Your task to perform on an android device: Clear the cart on target. Add usb-c to the cart on target, then select checkout. Image 0: 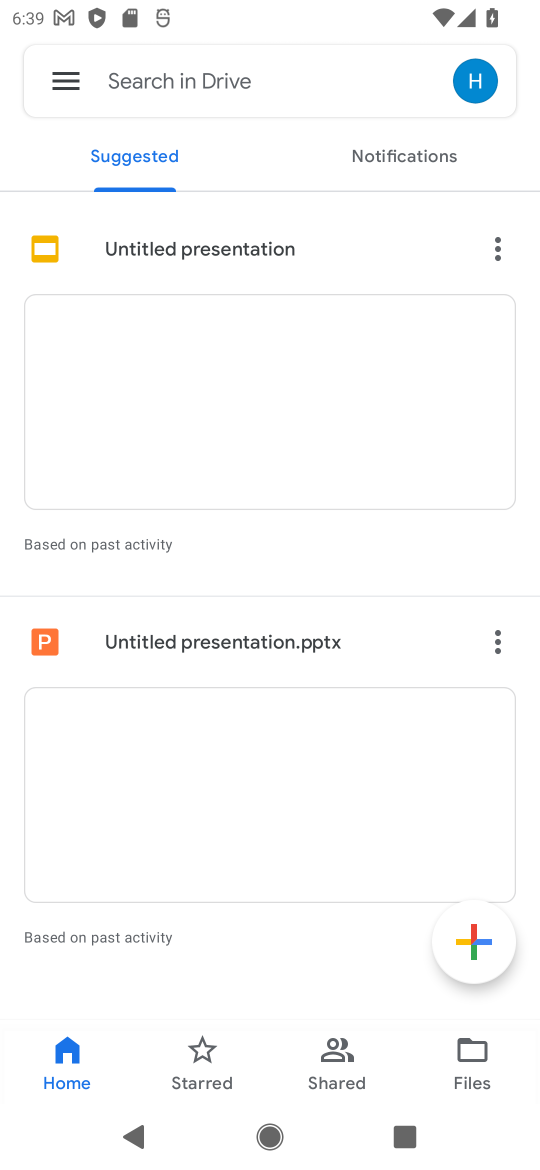
Step 0: press home button
Your task to perform on an android device: Clear the cart on target. Add usb-c to the cart on target, then select checkout. Image 1: 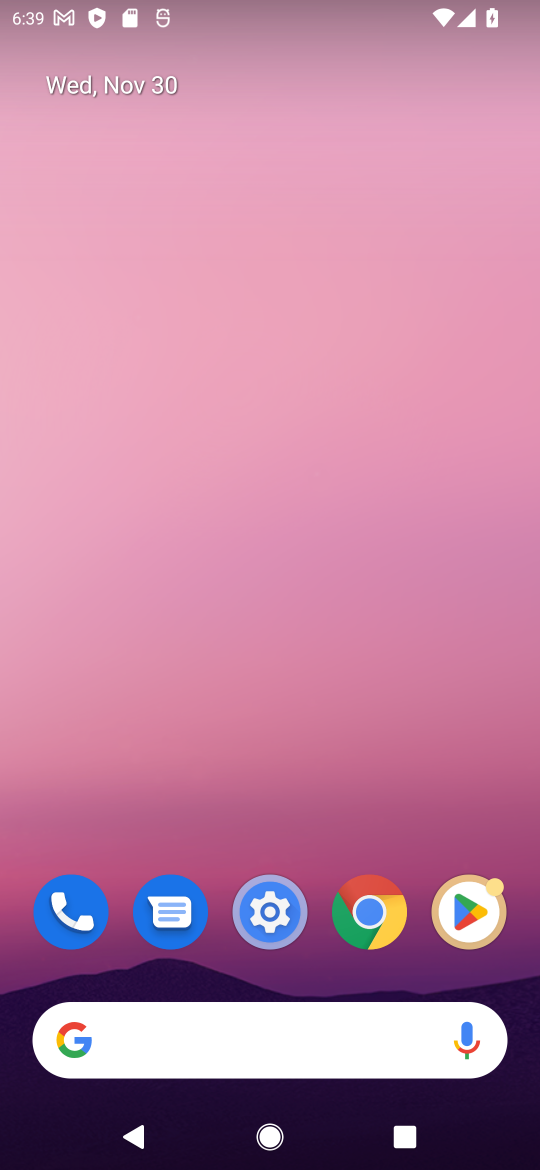
Step 1: click (246, 1052)
Your task to perform on an android device: Clear the cart on target. Add usb-c to the cart on target, then select checkout. Image 2: 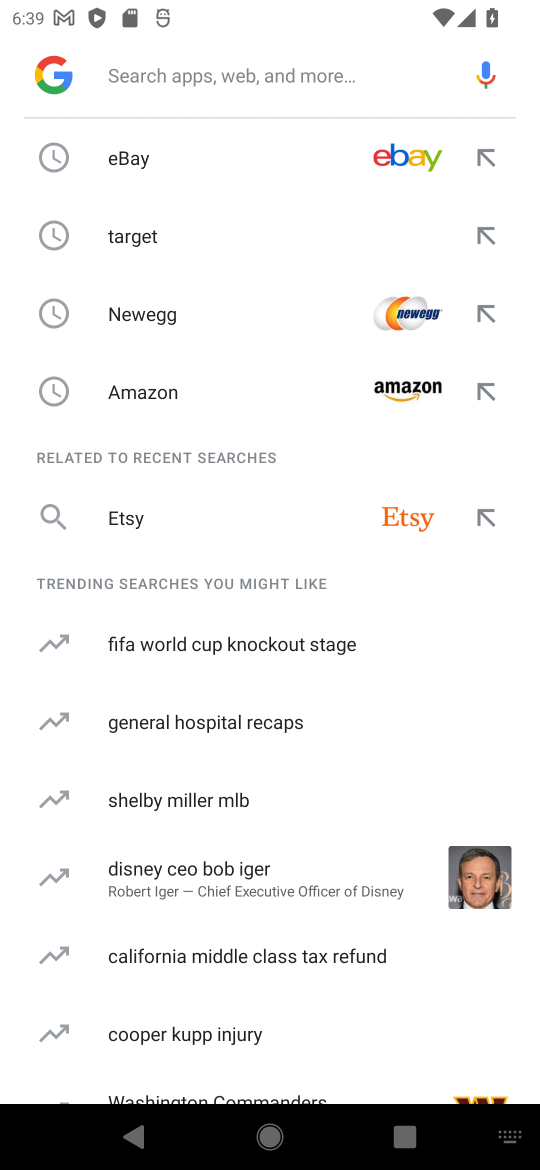
Step 2: click (139, 238)
Your task to perform on an android device: Clear the cart on target. Add usb-c to the cart on target, then select checkout. Image 3: 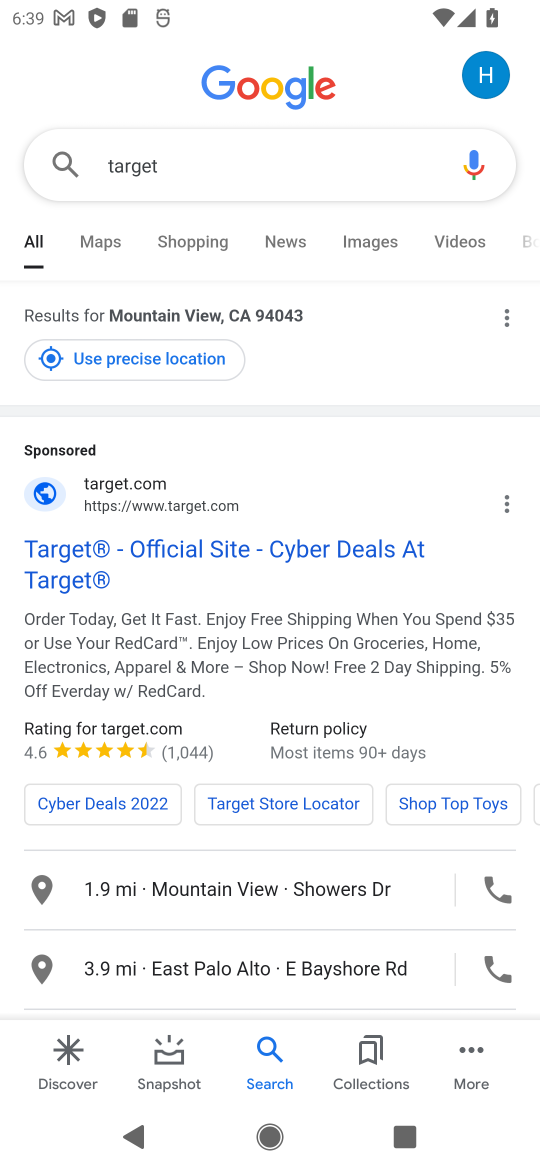
Step 3: drag from (151, 702) to (143, 450)
Your task to perform on an android device: Clear the cart on target. Add usb-c to the cart on target, then select checkout. Image 4: 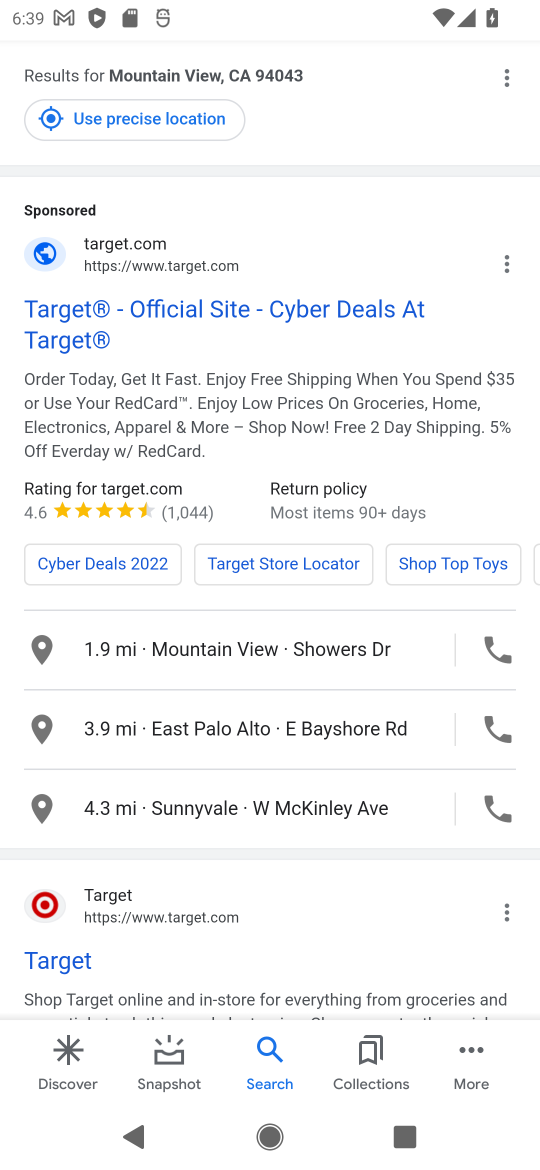
Step 4: click (67, 952)
Your task to perform on an android device: Clear the cart on target. Add usb-c to the cart on target, then select checkout. Image 5: 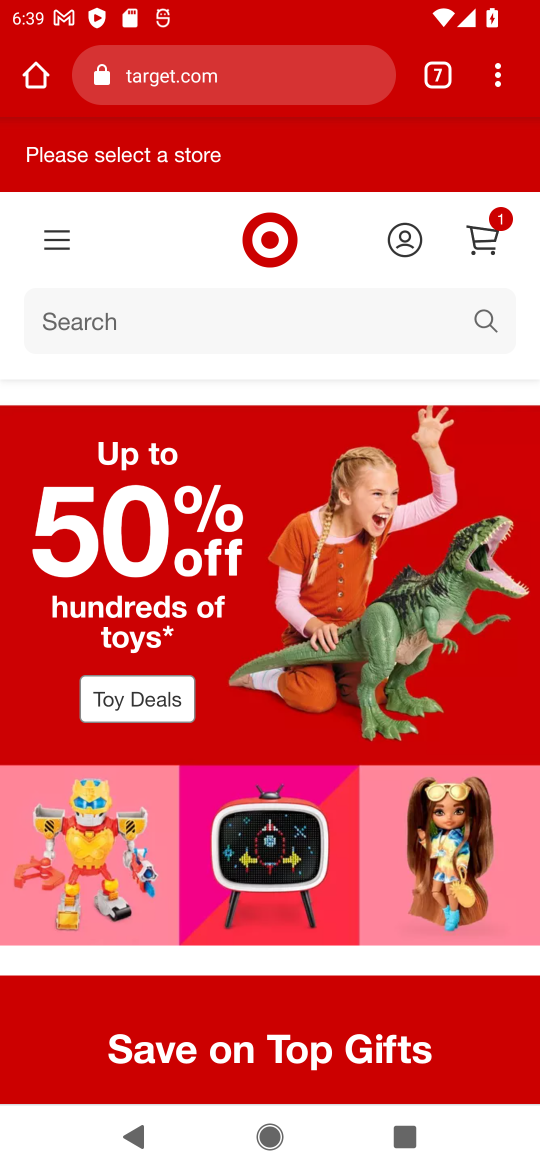
Step 5: click (495, 240)
Your task to perform on an android device: Clear the cart on target. Add usb-c to the cart on target, then select checkout. Image 6: 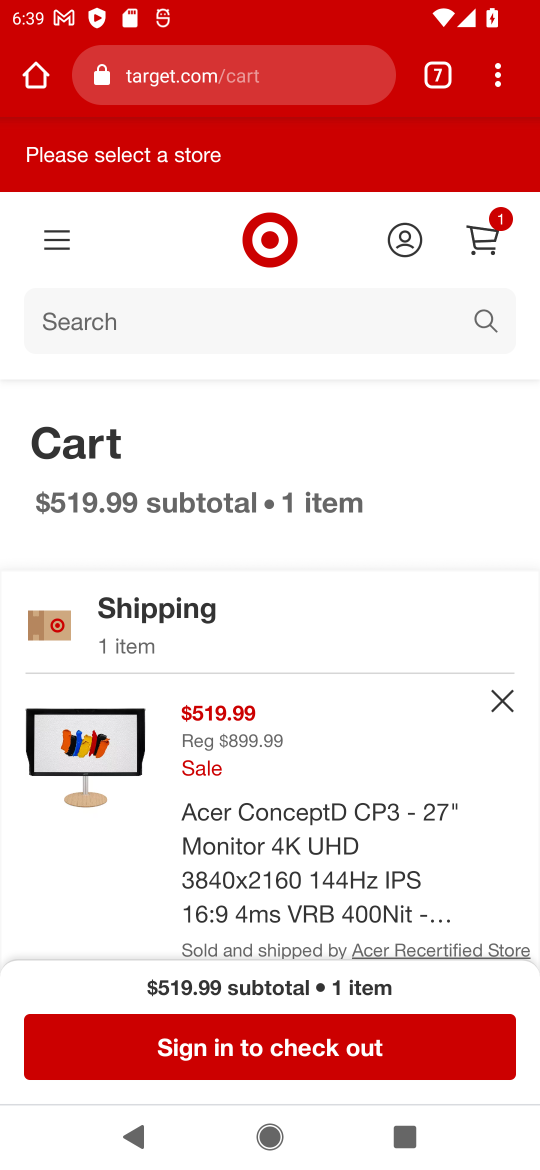
Step 6: click (511, 701)
Your task to perform on an android device: Clear the cart on target. Add usb-c to the cart on target, then select checkout. Image 7: 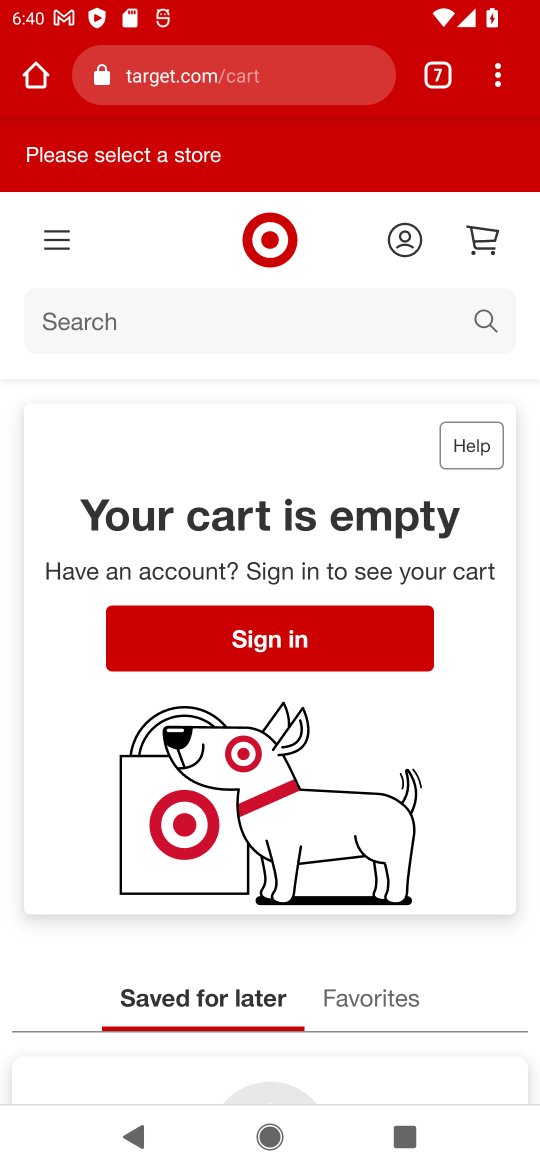
Step 7: click (237, 316)
Your task to perform on an android device: Clear the cart on target. Add usb-c to the cart on target, then select checkout. Image 8: 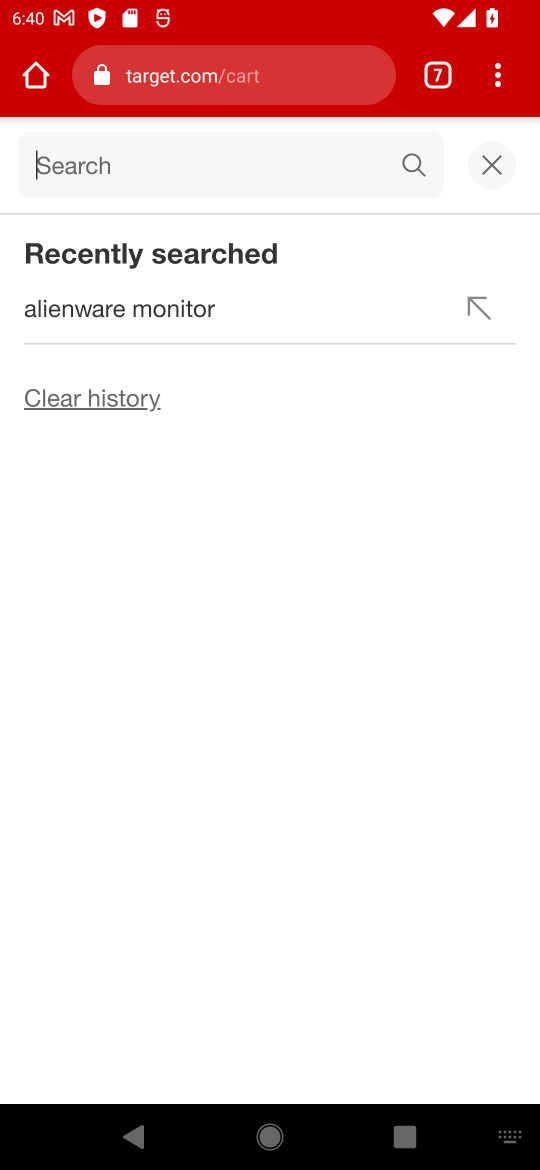
Step 8: type "usb-c"
Your task to perform on an android device: Clear the cart on target. Add usb-c to the cart on target, then select checkout. Image 9: 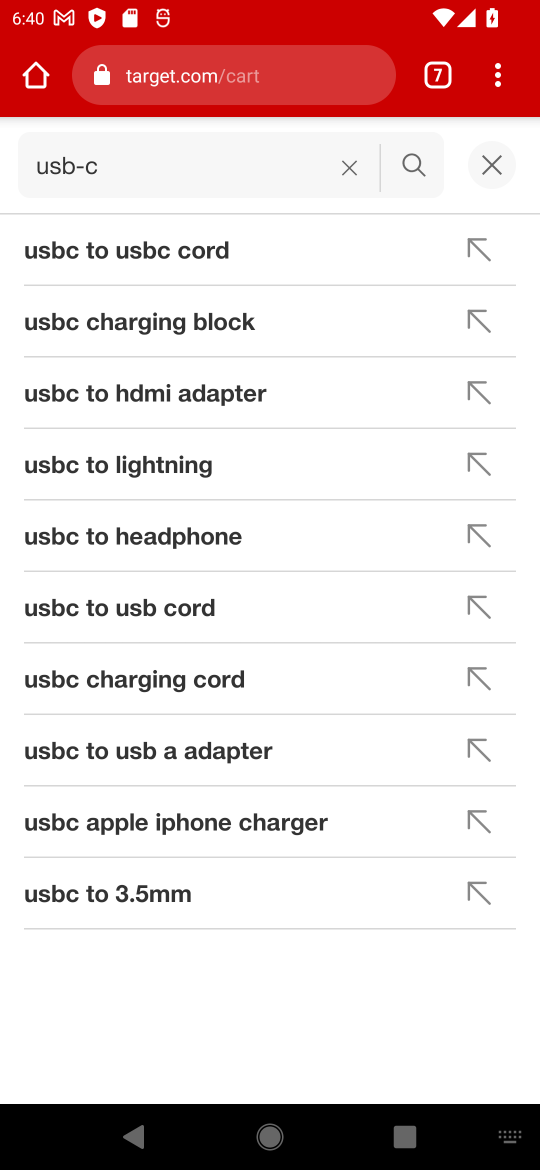
Step 9: click (194, 245)
Your task to perform on an android device: Clear the cart on target. Add usb-c to the cart on target, then select checkout. Image 10: 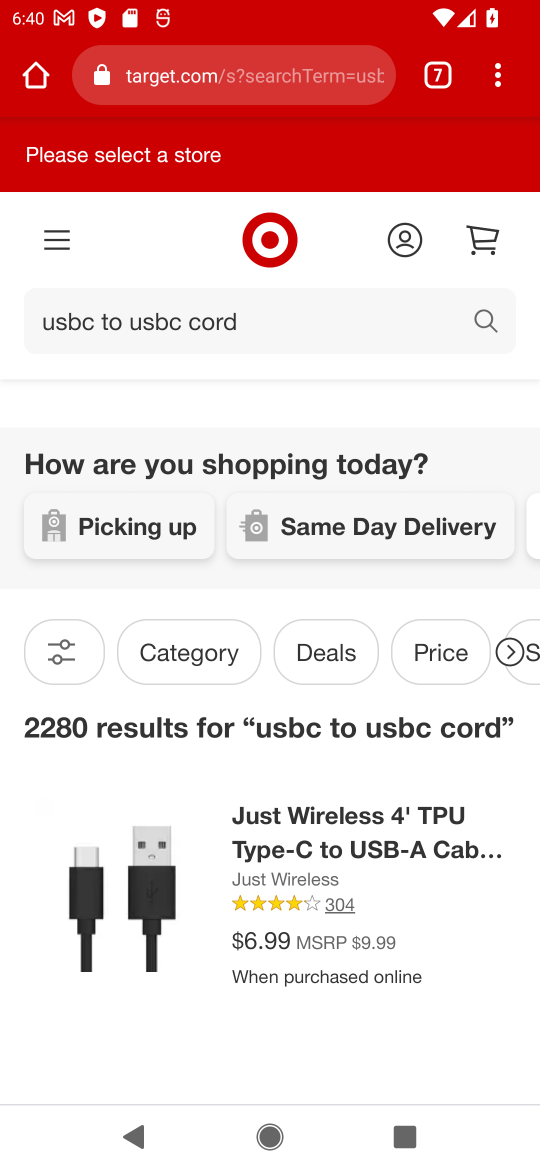
Step 10: drag from (347, 857) to (346, 767)
Your task to perform on an android device: Clear the cart on target. Add usb-c to the cart on target, then select checkout. Image 11: 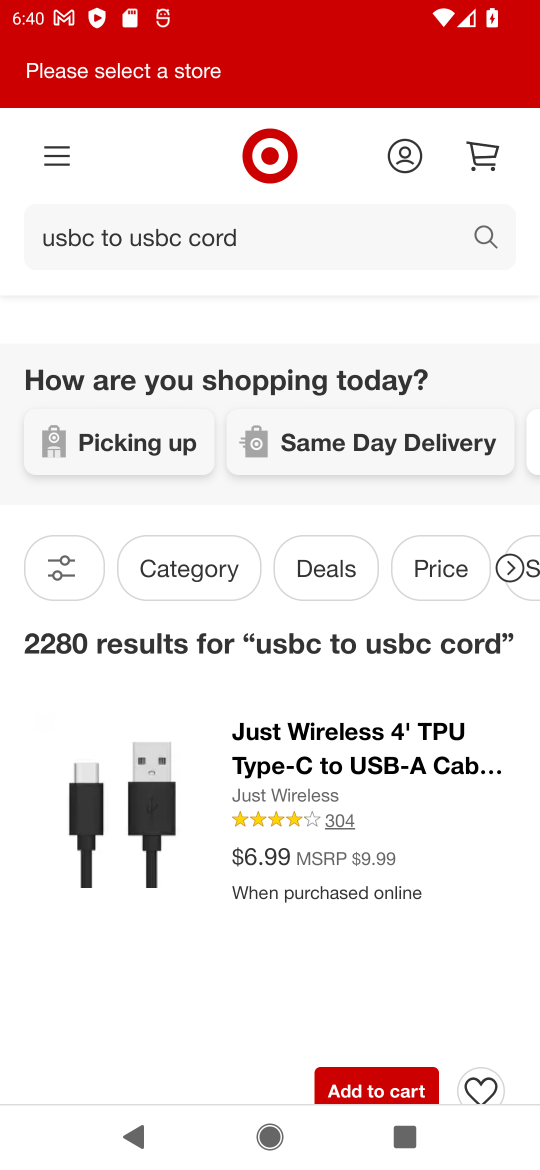
Step 11: drag from (280, 748) to (272, 631)
Your task to perform on an android device: Clear the cart on target. Add usb-c to the cart on target, then select checkout. Image 12: 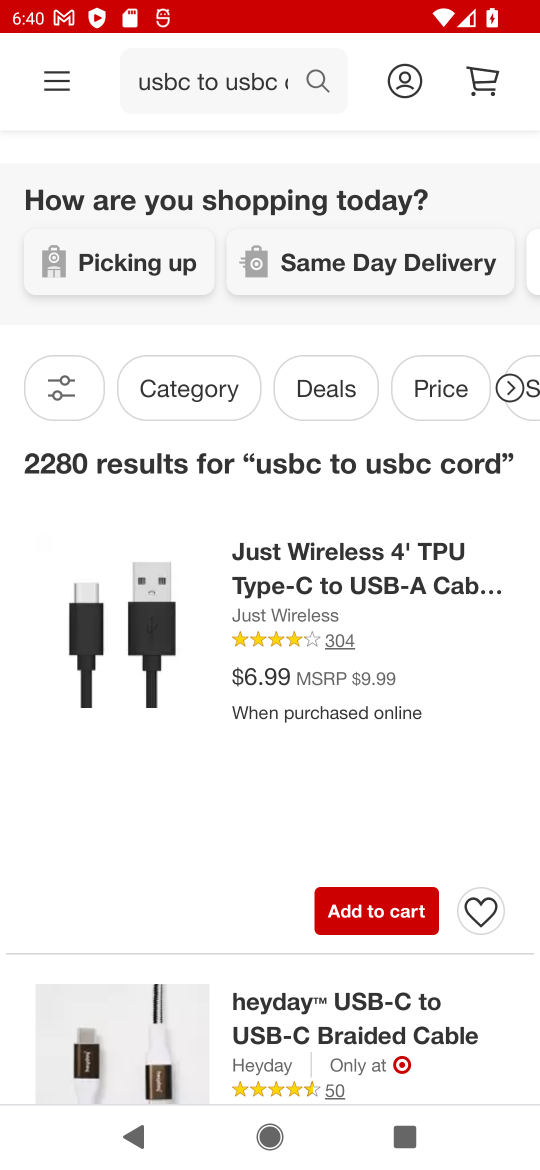
Step 12: click (371, 911)
Your task to perform on an android device: Clear the cart on target. Add usb-c to the cart on target, then select checkout. Image 13: 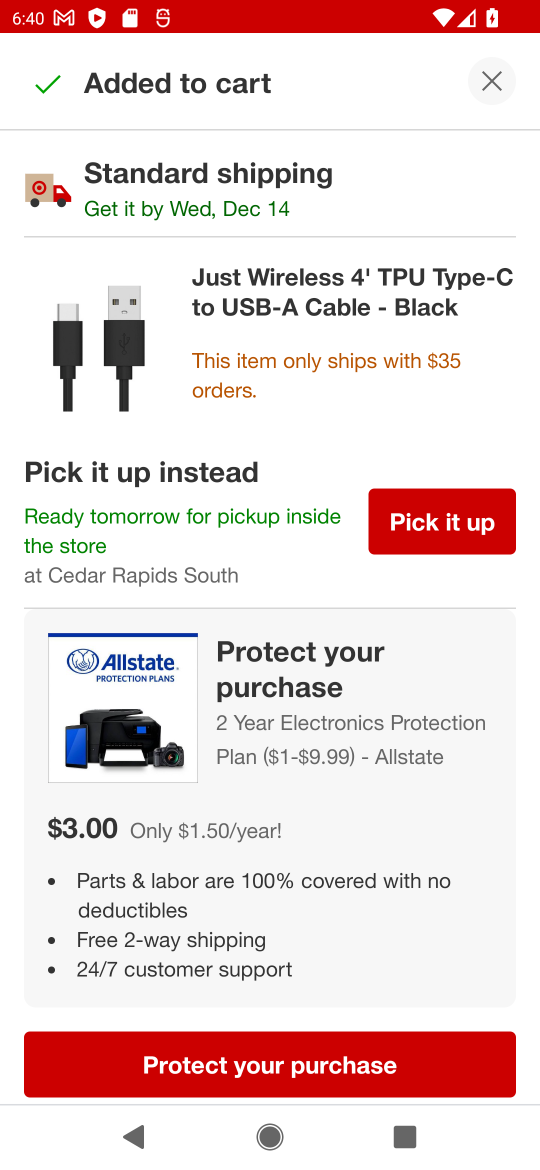
Step 13: click (499, 75)
Your task to perform on an android device: Clear the cart on target. Add usb-c to the cart on target, then select checkout. Image 14: 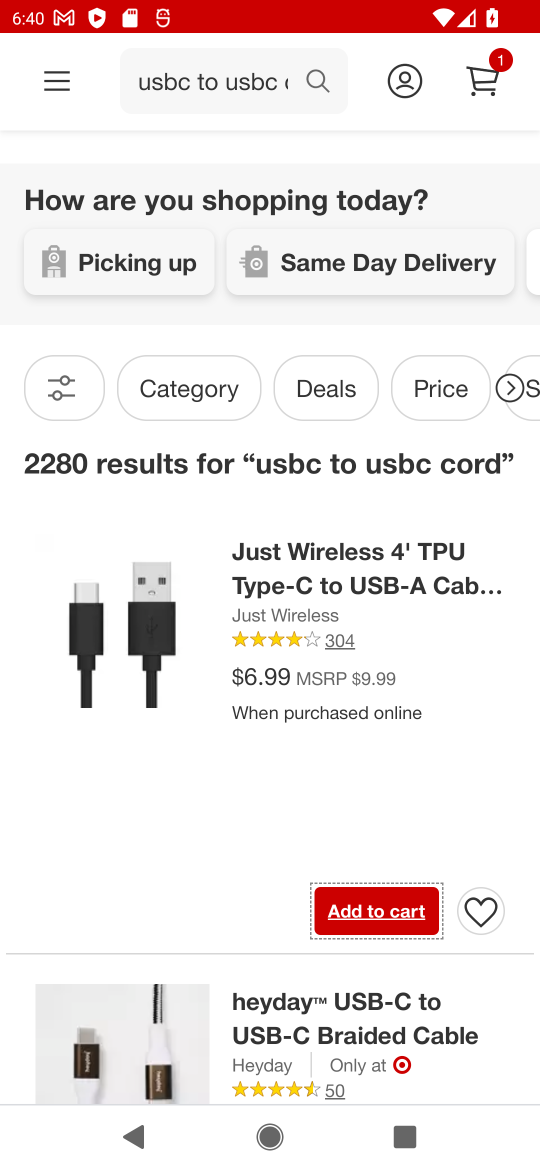
Step 14: click (499, 75)
Your task to perform on an android device: Clear the cart on target. Add usb-c to the cart on target, then select checkout. Image 15: 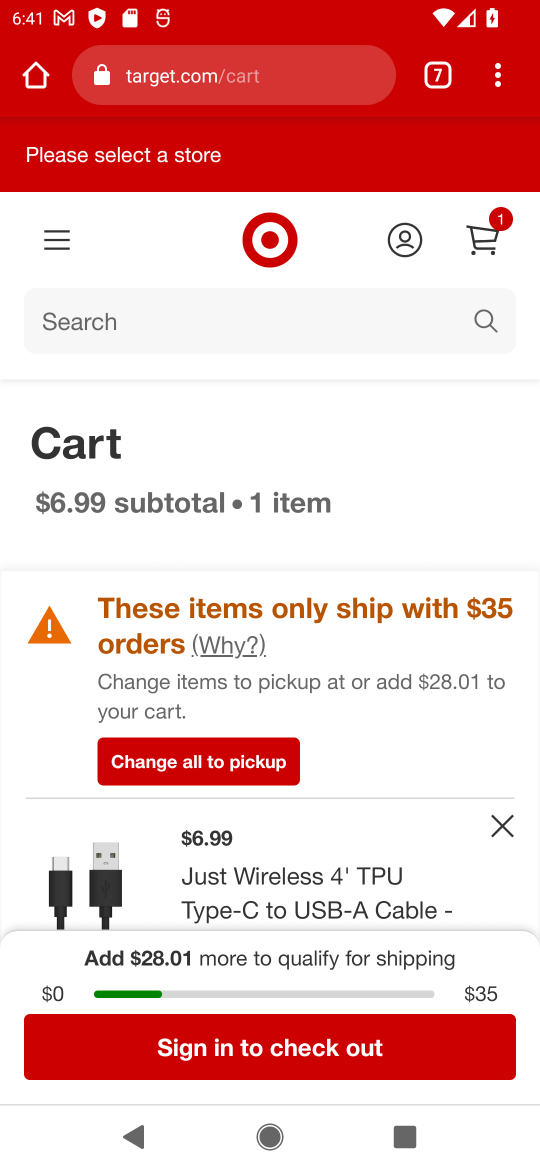
Step 15: click (248, 1048)
Your task to perform on an android device: Clear the cart on target. Add usb-c to the cart on target, then select checkout. Image 16: 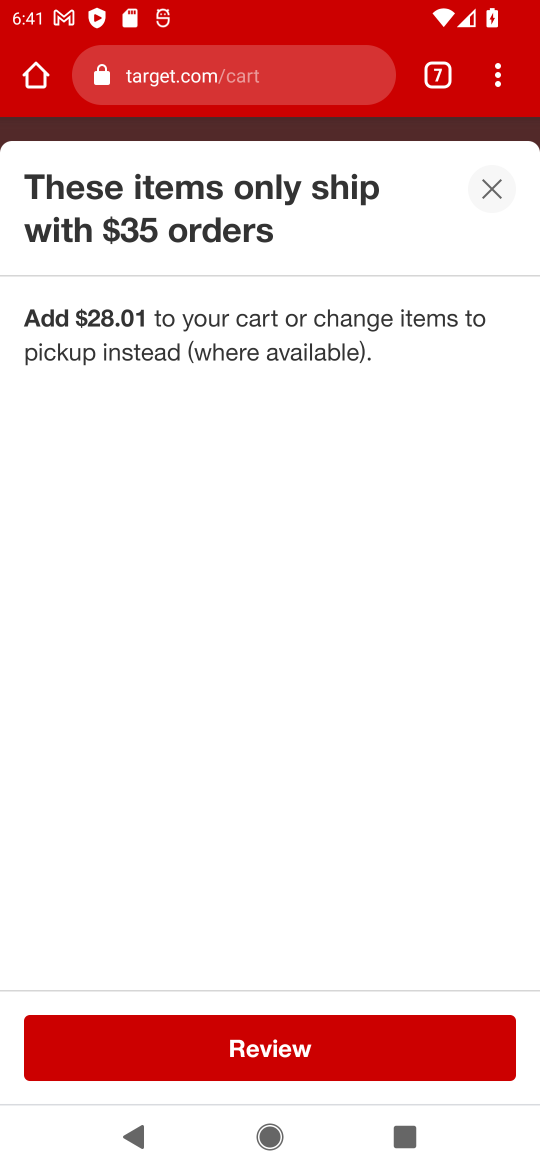
Step 16: task complete